Your task to perform on an android device: Open my contact list Image 0: 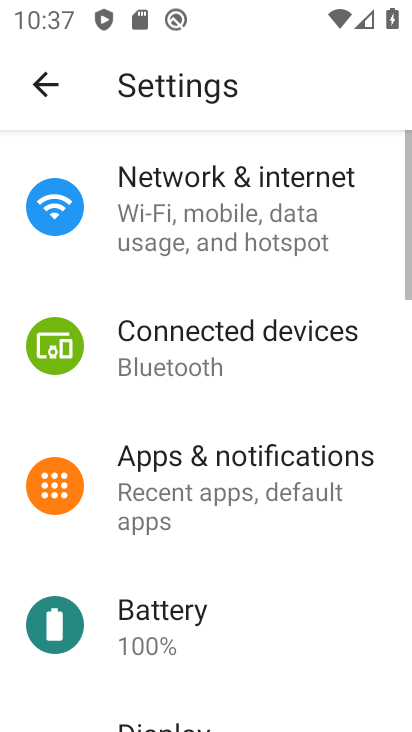
Step 0: press home button
Your task to perform on an android device: Open my contact list Image 1: 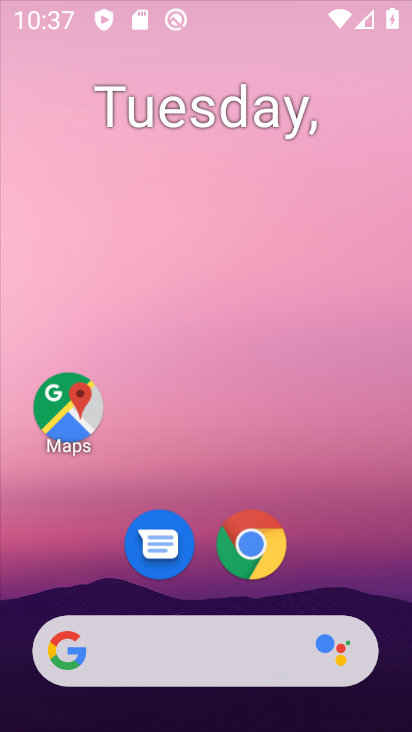
Step 1: drag from (384, 616) to (276, 61)
Your task to perform on an android device: Open my contact list Image 2: 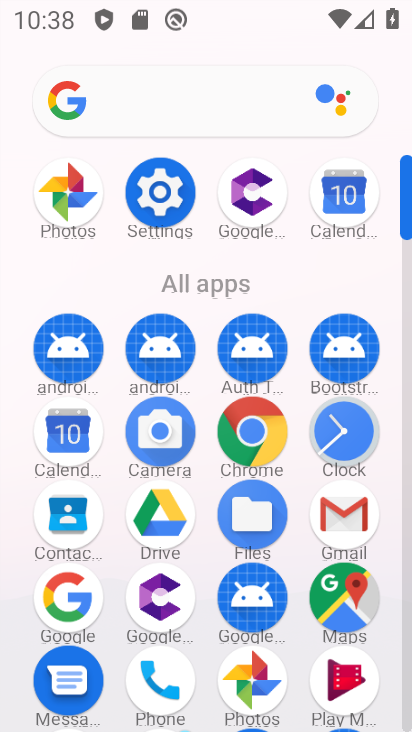
Step 2: click (89, 528)
Your task to perform on an android device: Open my contact list Image 3: 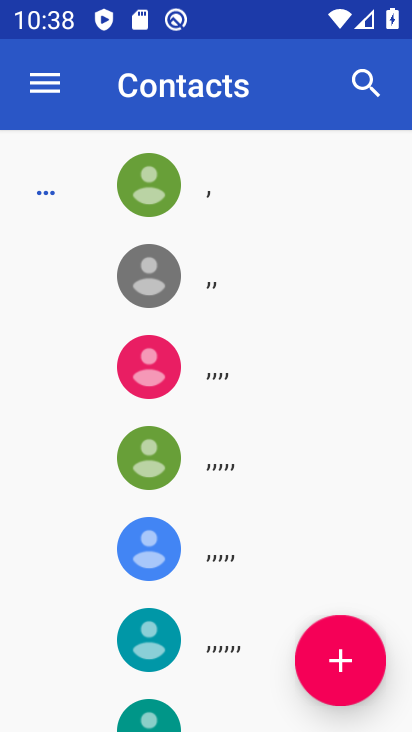
Step 3: task complete